Your task to perform on an android device: make emails show in primary in the gmail app Image 0: 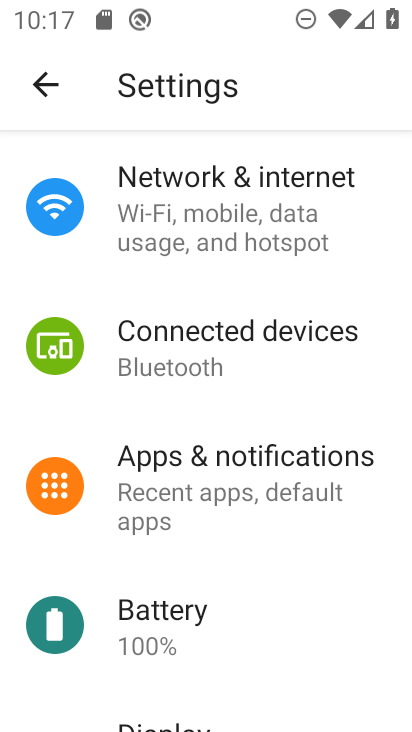
Step 0: drag from (226, 633) to (255, 227)
Your task to perform on an android device: make emails show in primary in the gmail app Image 1: 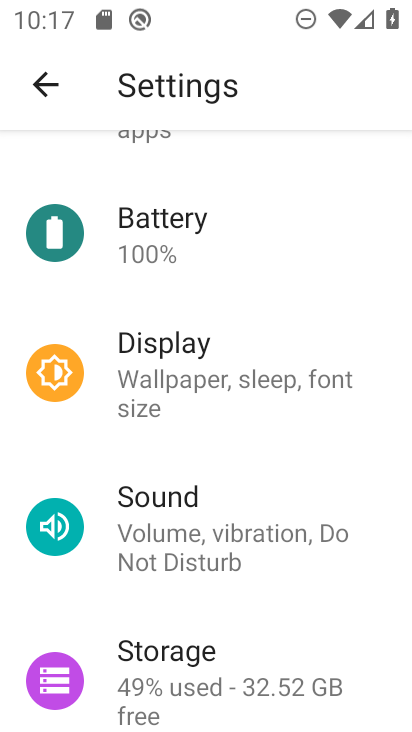
Step 1: drag from (234, 607) to (271, 177)
Your task to perform on an android device: make emails show in primary in the gmail app Image 2: 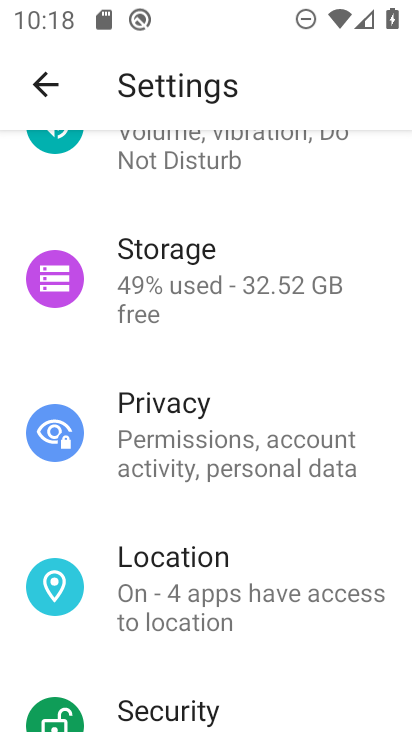
Step 2: press home button
Your task to perform on an android device: make emails show in primary in the gmail app Image 3: 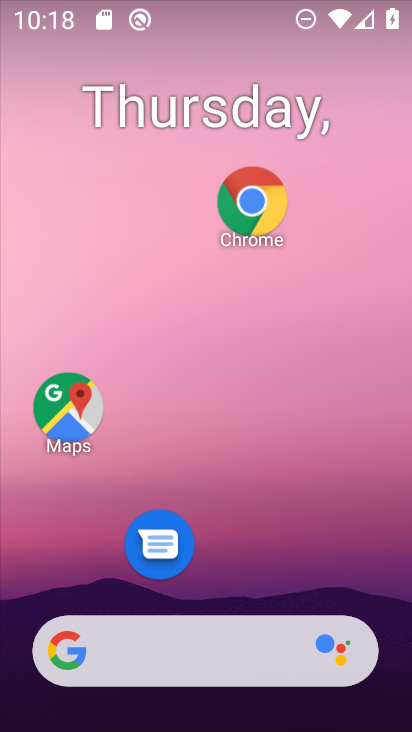
Step 3: drag from (213, 585) to (260, 33)
Your task to perform on an android device: make emails show in primary in the gmail app Image 4: 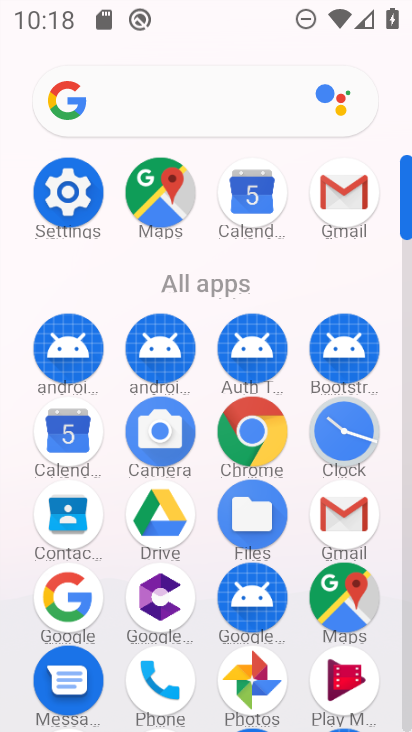
Step 4: click (343, 509)
Your task to perform on an android device: make emails show in primary in the gmail app Image 5: 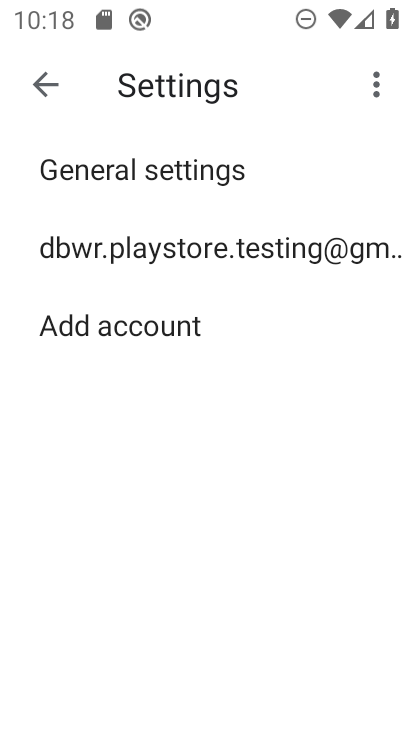
Step 5: click (279, 252)
Your task to perform on an android device: make emails show in primary in the gmail app Image 6: 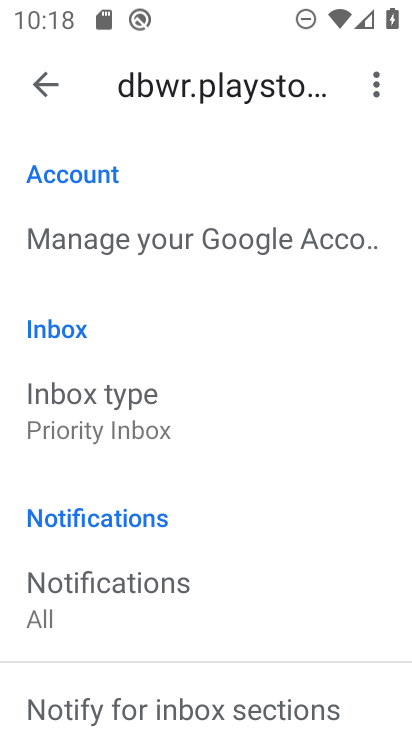
Step 6: click (182, 410)
Your task to perform on an android device: make emails show in primary in the gmail app Image 7: 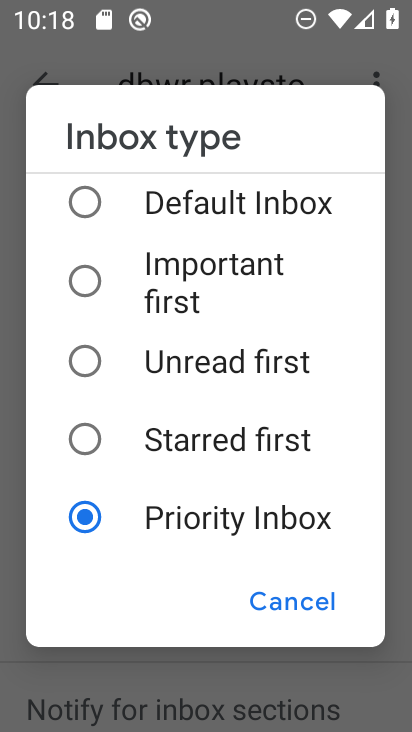
Step 7: click (84, 202)
Your task to perform on an android device: make emails show in primary in the gmail app Image 8: 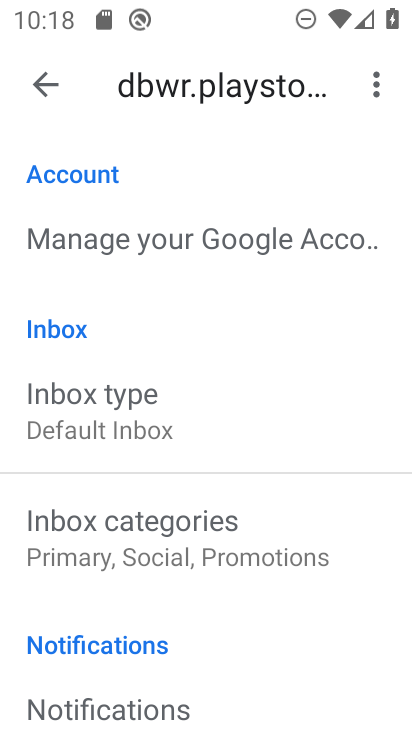
Step 8: task complete